Your task to perform on an android device: Open my contact list Image 0: 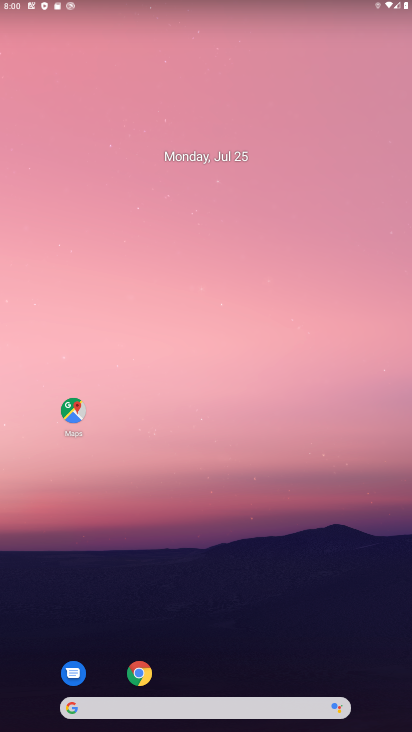
Step 0: drag from (240, 441) to (240, 115)
Your task to perform on an android device: Open my contact list Image 1: 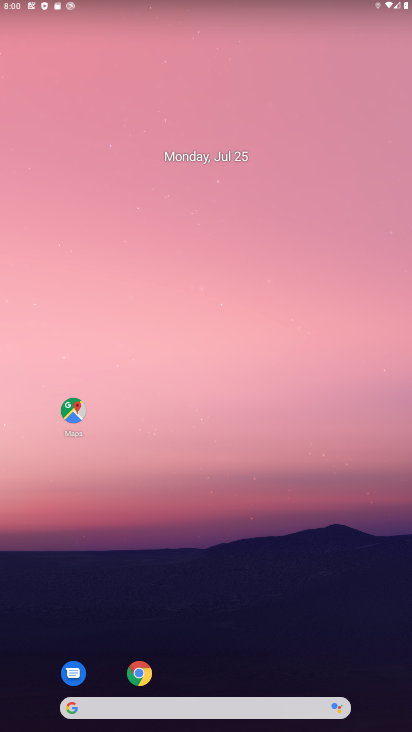
Step 1: drag from (244, 565) to (214, 65)
Your task to perform on an android device: Open my contact list Image 2: 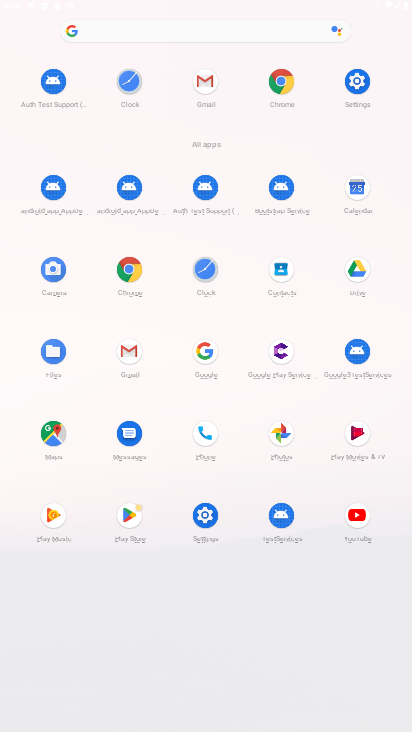
Step 2: click (277, 270)
Your task to perform on an android device: Open my contact list Image 3: 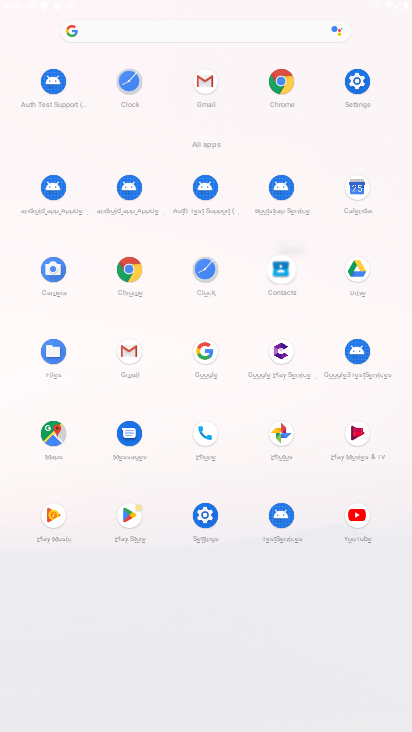
Step 3: click (277, 270)
Your task to perform on an android device: Open my contact list Image 4: 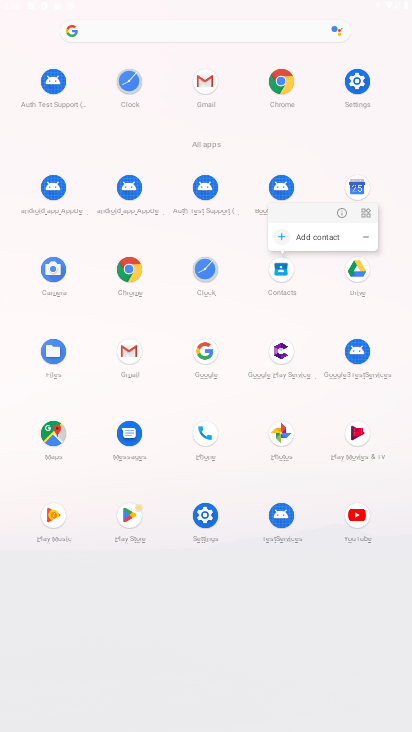
Step 4: click (284, 267)
Your task to perform on an android device: Open my contact list Image 5: 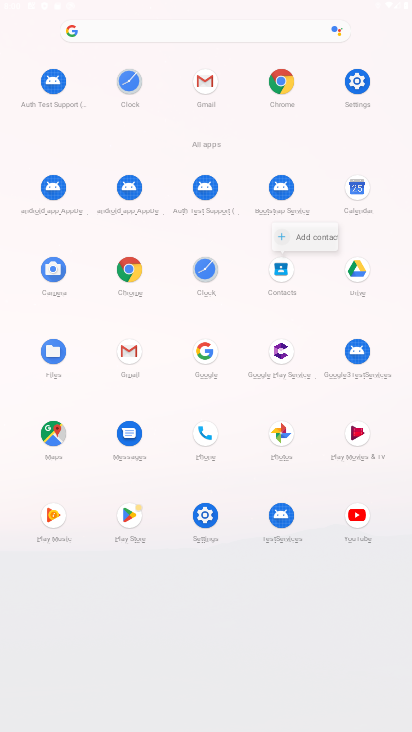
Step 5: click (284, 267)
Your task to perform on an android device: Open my contact list Image 6: 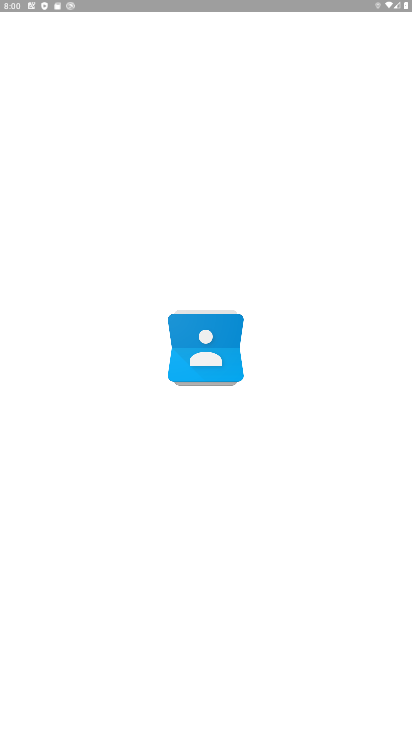
Step 6: click (284, 267)
Your task to perform on an android device: Open my contact list Image 7: 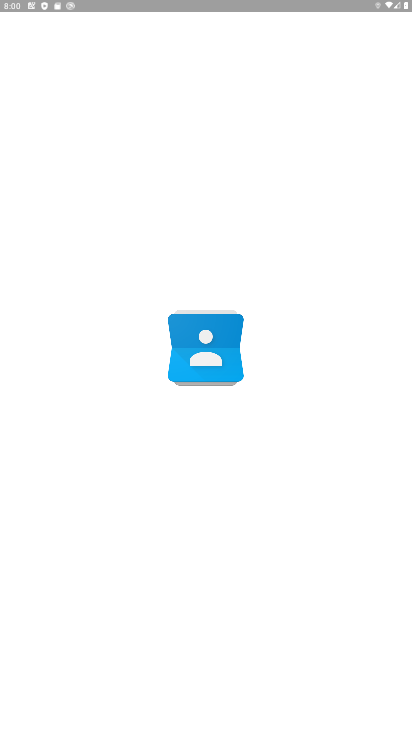
Step 7: click (284, 267)
Your task to perform on an android device: Open my contact list Image 8: 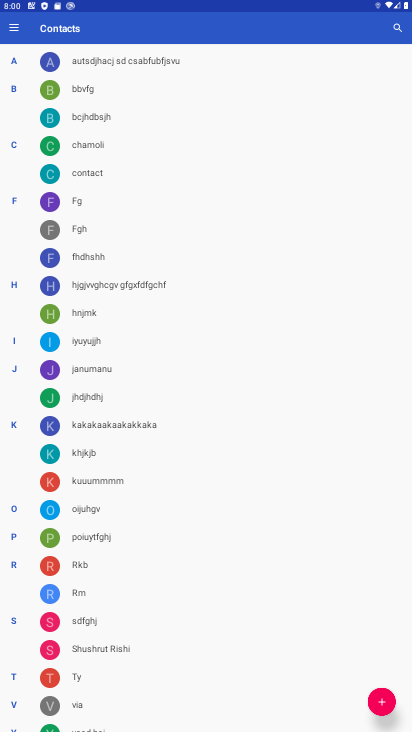
Step 8: task complete